Your task to perform on an android device: show emergency info Image 0: 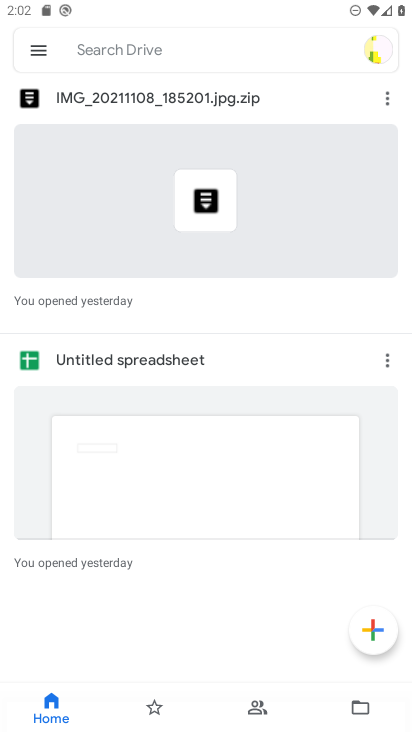
Step 0: press home button
Your task to perform on an android device: show emergency info Image 1: 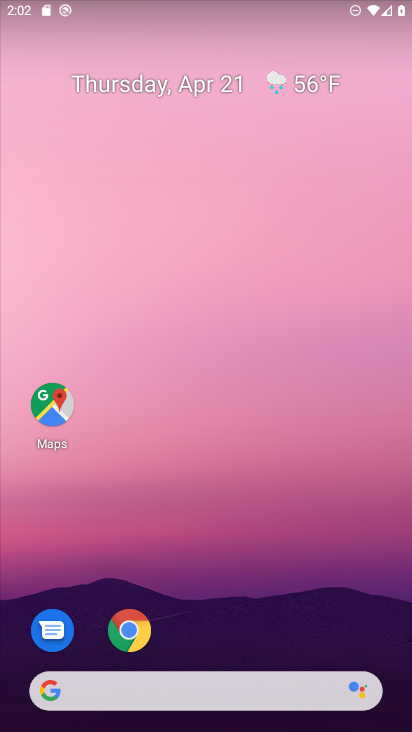
Step 1: drag from (205, 677) to (168, 1)
Your task to perform on an android device: show emergency info Image 2: 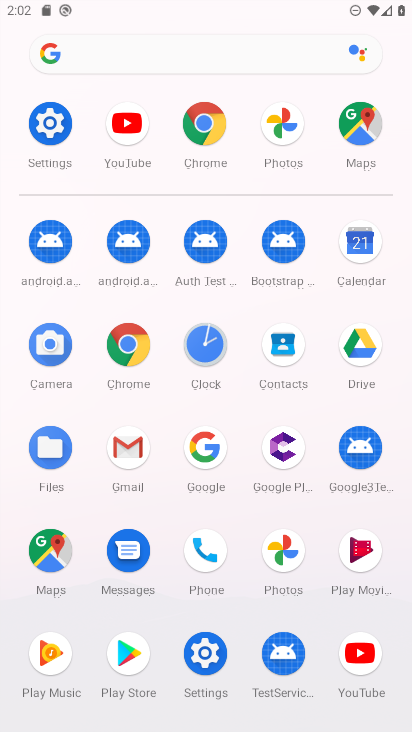
Step 2: click (60, 108)
Your task to perform on an android device: show emergency info Image 3: 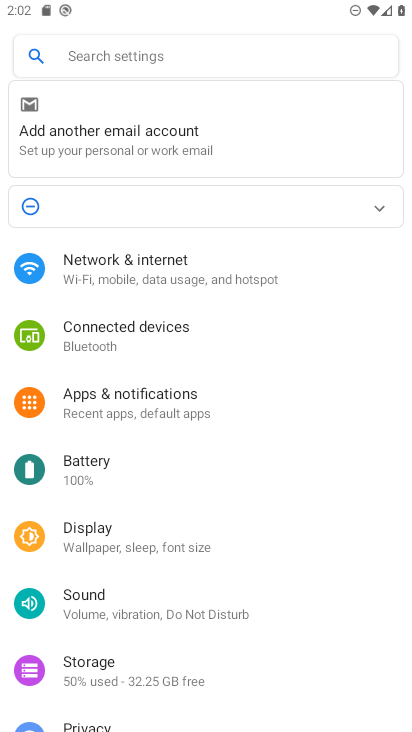
Step 3: drag from (200, 670) to (195, 124)
Your task to perform on an android device: show emergency info Image 4: 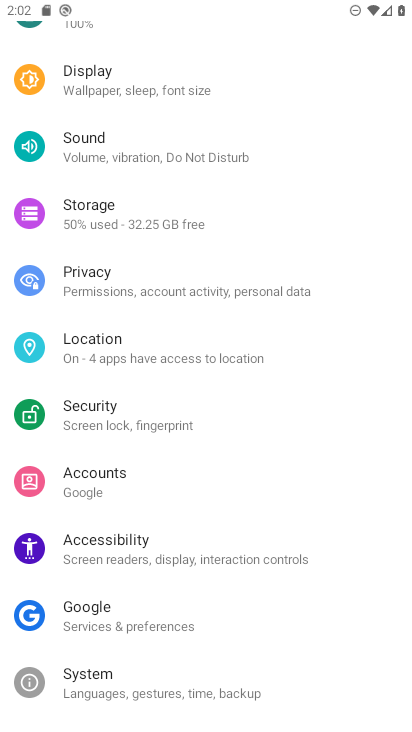
Step 4: drag from (163, 653) to (137, 121)
Your task to perform on an android device: show emergency info Image 5: 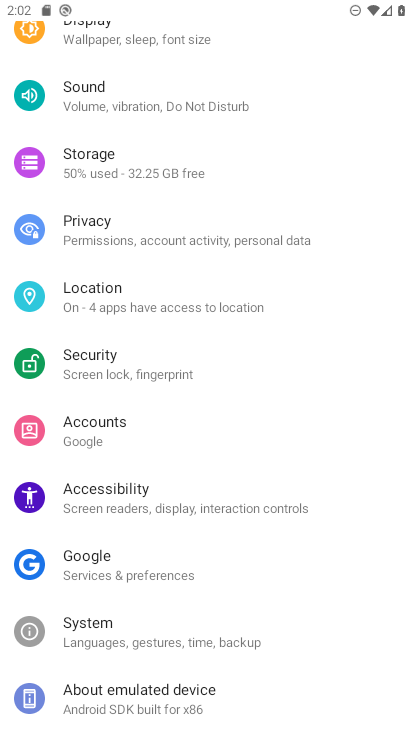
Step 5: click (155, 695)
Your task to perform on an android device: show emergency info Image 6: 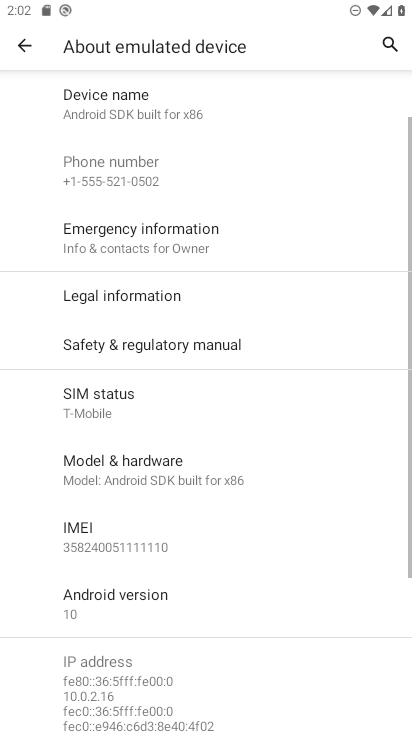
Step 6: click (147, 240)
Your task to perform on an android device: show emergency info Image 7: 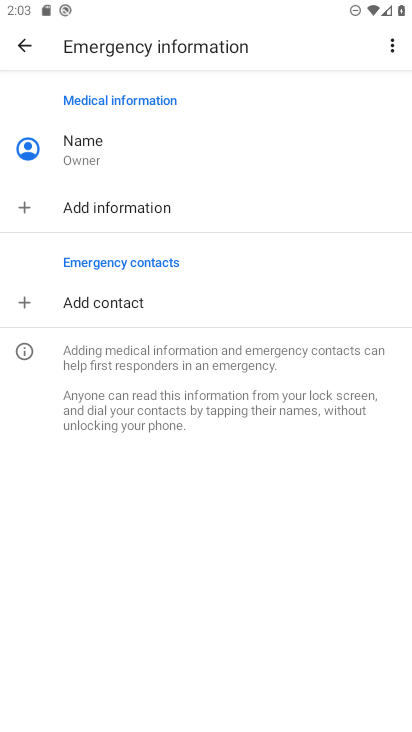
Step 7: task complete